Your task to perform on an android device: delete location history Image 0: 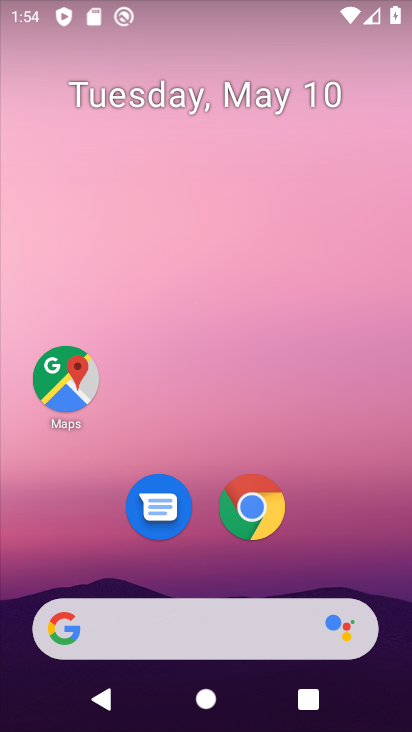
Step 0: click (63, 0)
Your task to perform on an android device: delete location history Image 1: 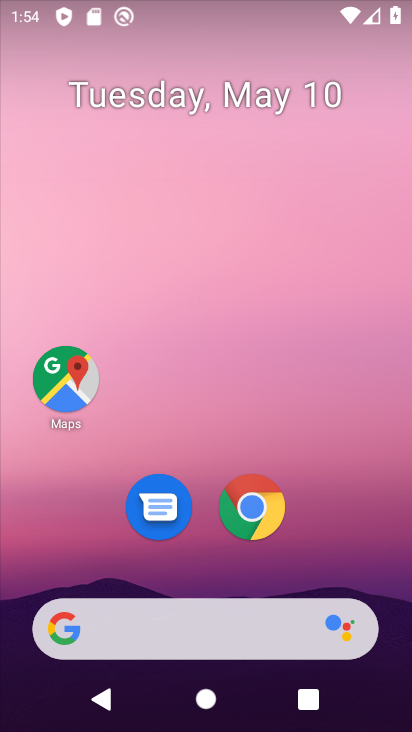
Step 1: drag from (317, 518) to (2, 66)
Your task to perform on an android device: delete location history Image 2: 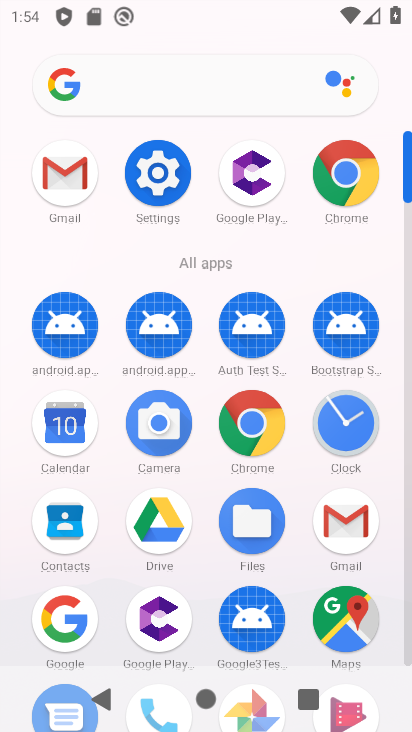
Step 2: click (338, 631)
Your task to perform on an android device: delete location history Image 3: 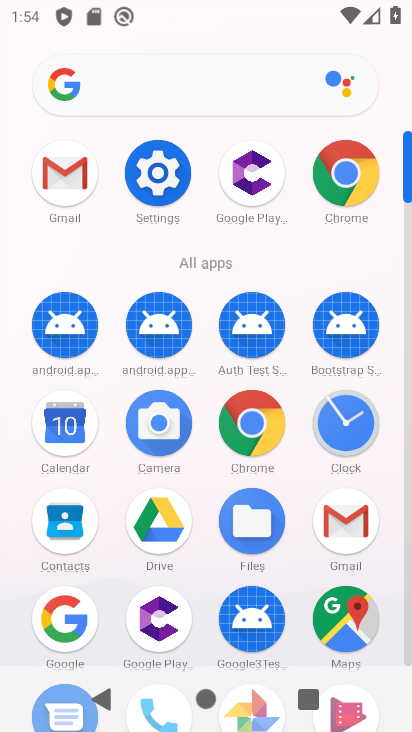
Step 3: click (338, 630)
Your task to perform on an android device: delete location history Image 4: 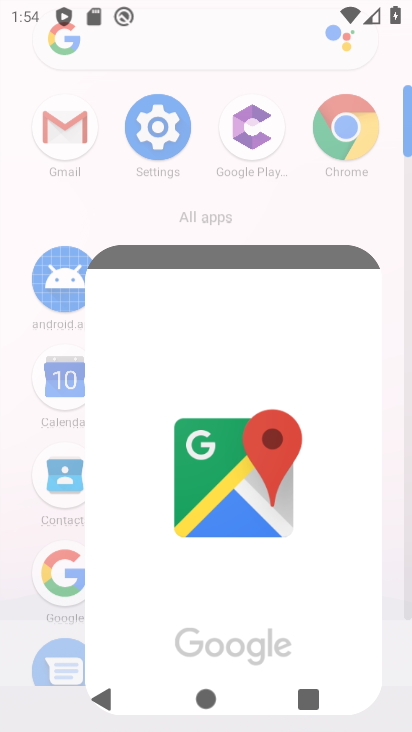
Step 4: click (341, 628)
Your task to perform on an android device: delete location history Image 5: 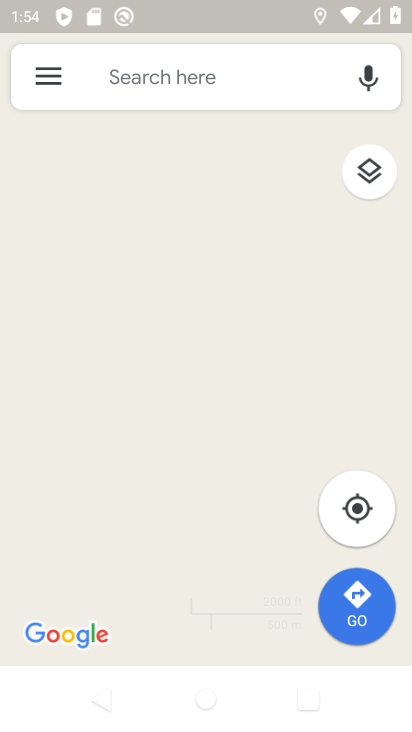
Step 5: click (48, 76)
Your task to perform on an android device: delete location history Image 6: 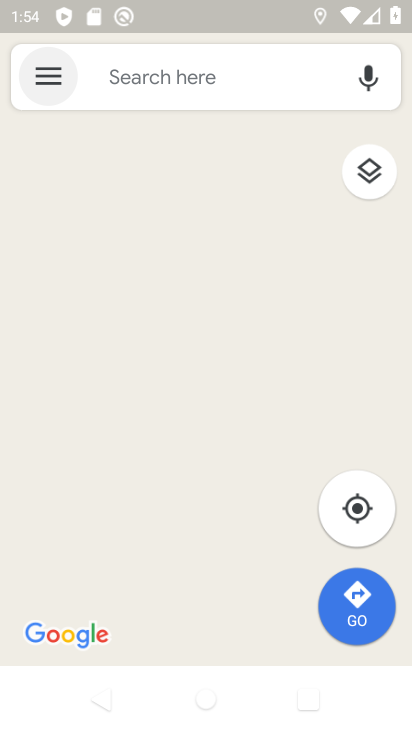
Step 6: click (49, 75)
Your task to perform on an android device: delete location history Image 7: 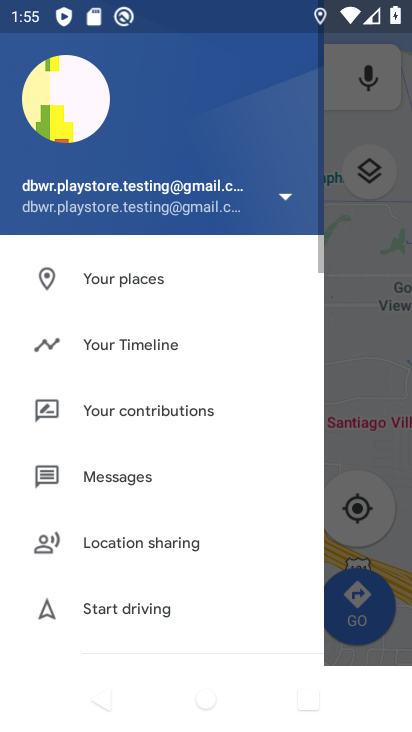
Step 7: click (138, 339)
Your task to perform on an android device: delete location history Image 8: 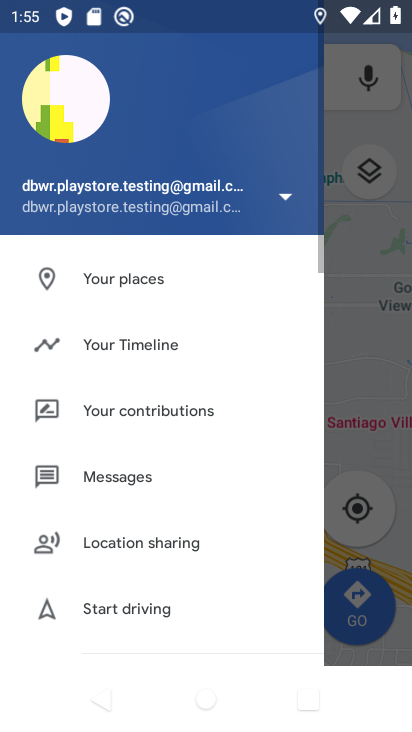
Step 8: click (138, 339)
Your task to perform on an android device: delete location history Image 9: 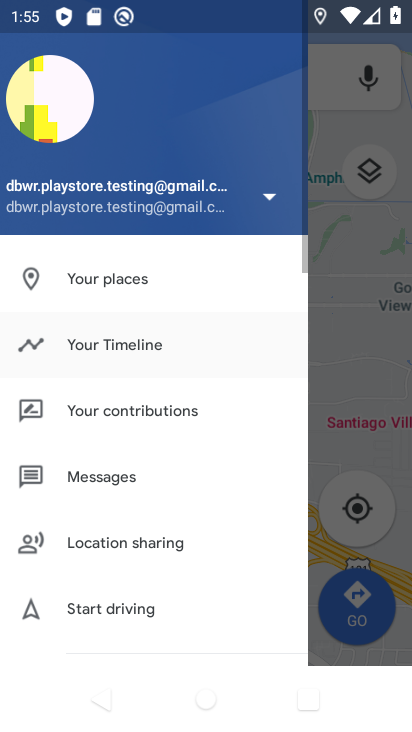
Step 9: click (138, 339)
Your task to perform on an android device: delete location history Image 10: 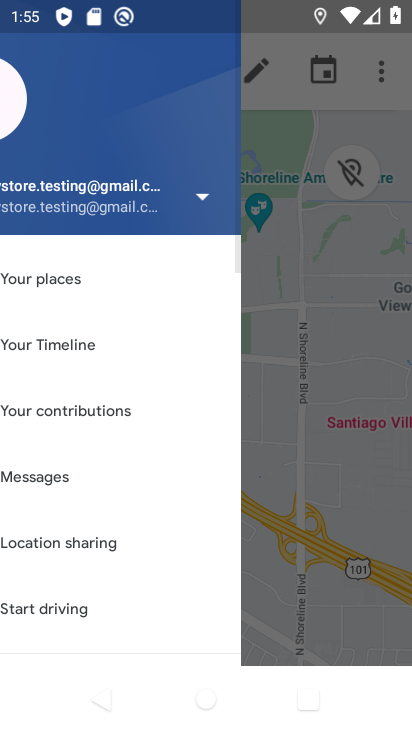
Step 10: click (139, 337)
Your task to perform on an android device: delete location history Image 11: 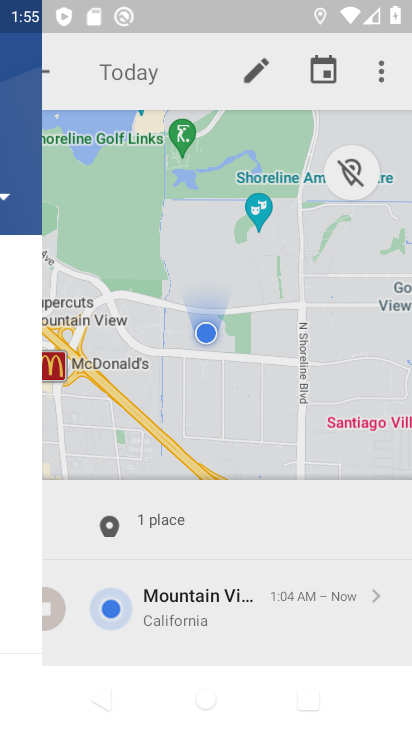
Step 11: click (142, 334)
Your task to perform on an android device: delete location history Image 12: 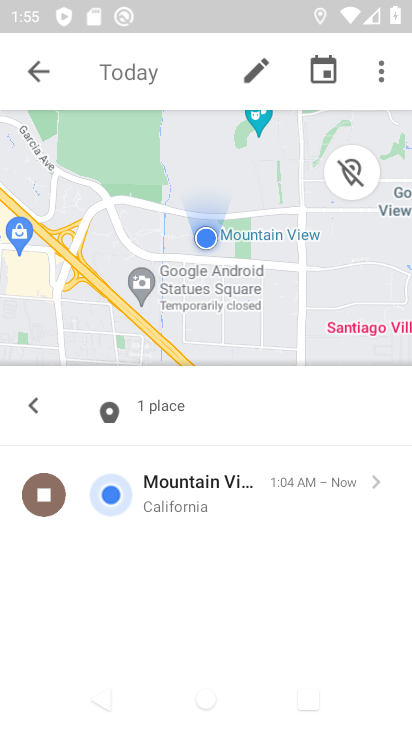
Step 12: drag from (381, 71) to (221, 460)
Your task to perform on an android device: delete location history Image 13: 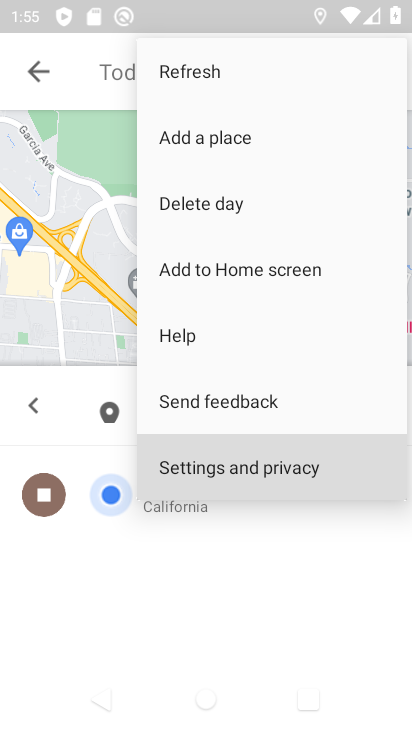
Step 13: click (221, 458)
Your task to perform on an android device: delete location history Image 14: 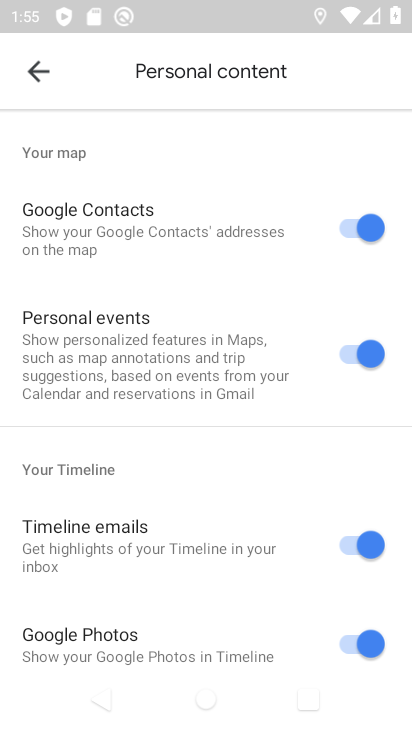
Step 14: drag from (180, 567) to (91, 225)
Your task to perform on an android device: delete location history Image 15: 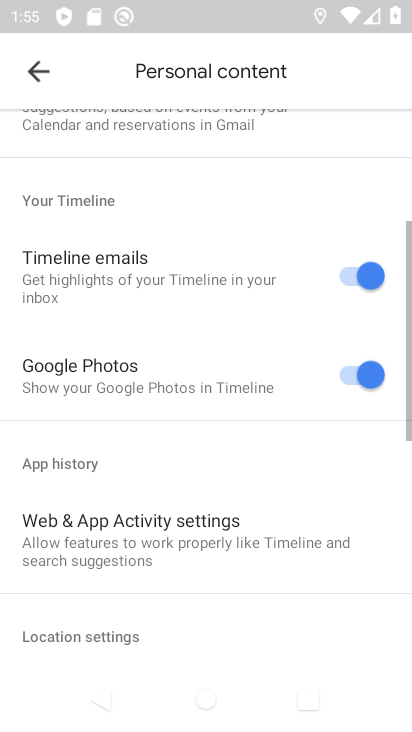
Step 15: drag from (184, 501) to (144, 259)
Your task to perform on an android device: delete location history Image 16: 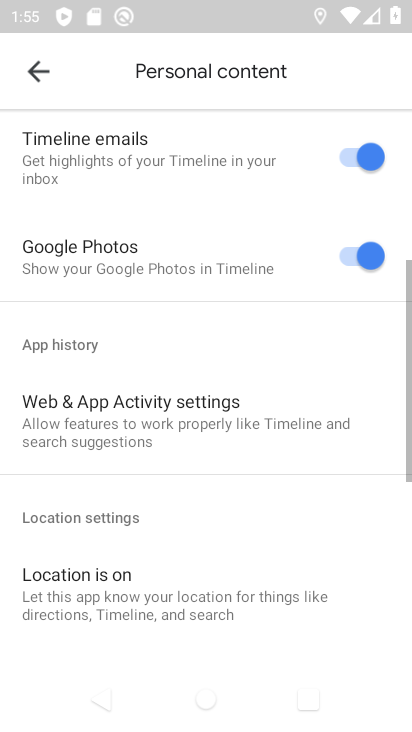
Step 16: drag from (240, 497) to (241, 31)
Your task to perform on an android device: delete location history Image 17: 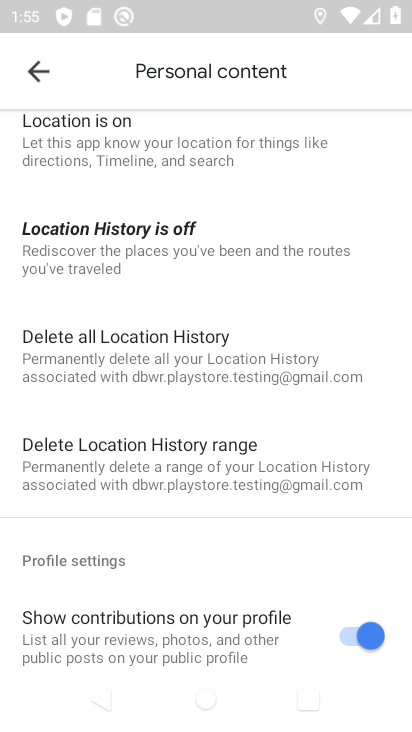
Step 17: click (101, 241)
Your task to perform on an android device: delete location history Image 18: 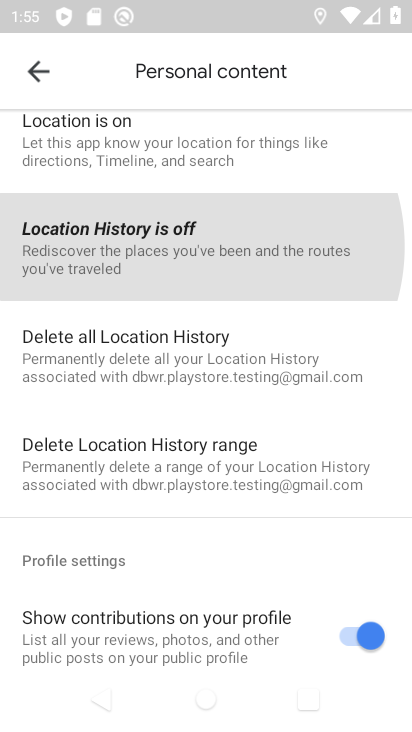
Step 18: click (107, 242)
Your task to perform on an android device: delete location history Image 19: 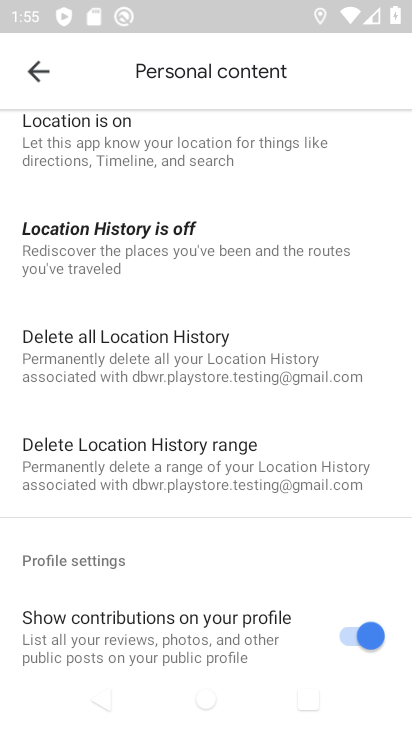
Step 19: click (108, 244)
Your task to perform on an android device: delete location history Image 20: 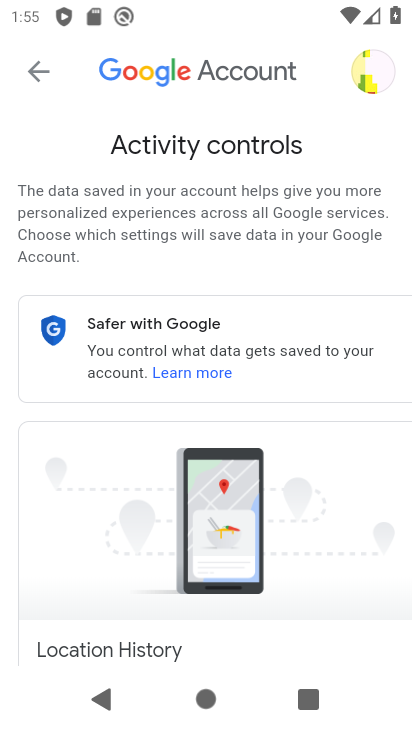
Step 20: drag from (242, 409) to (120, 73)
Your task to perform on an android device: delete location history Image 21: 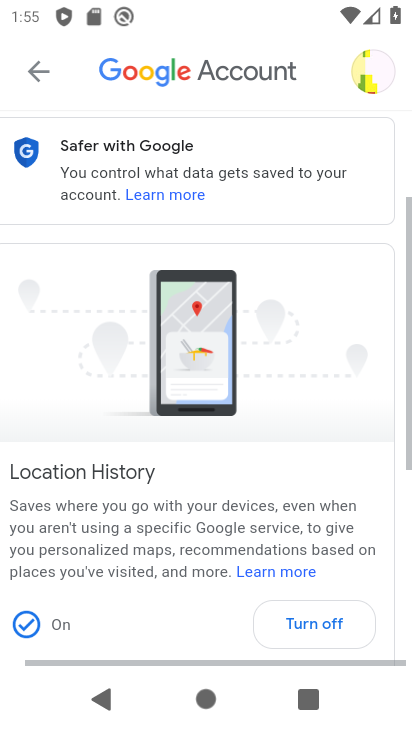
Step 21: drag from (218, 223) to (187, 75)
Your task to perform on an android device: delete location history Image 22: 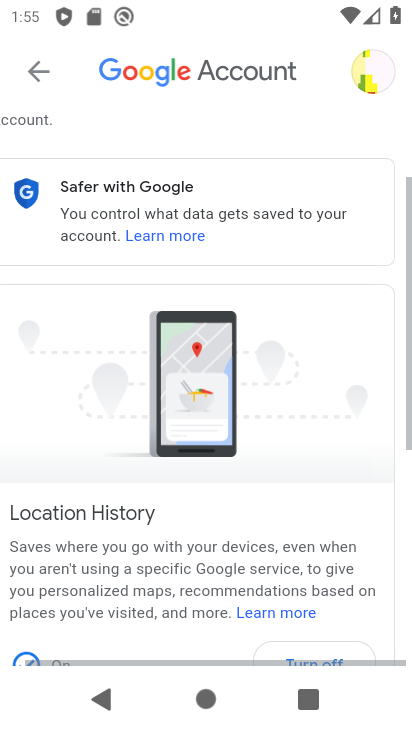
Step 22: drag from (178, 330) to (142, 18)
Your task to perform on an android device: delete location history Image 23: 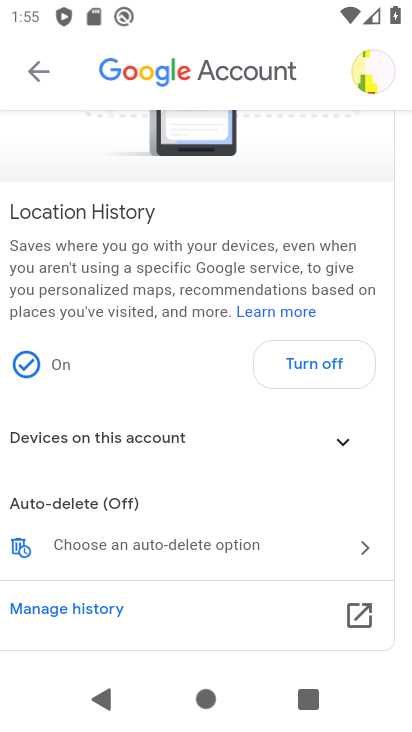
Step 23: click (317, 362)
Your task to perform on an android device: delete location history Image 24: 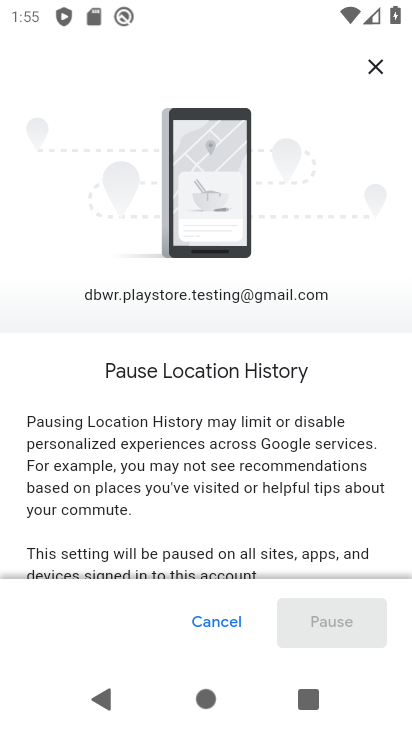
Step 24: task complete